Your task to perform on an android device: toggle priority inbox in the gmail app Image 0: 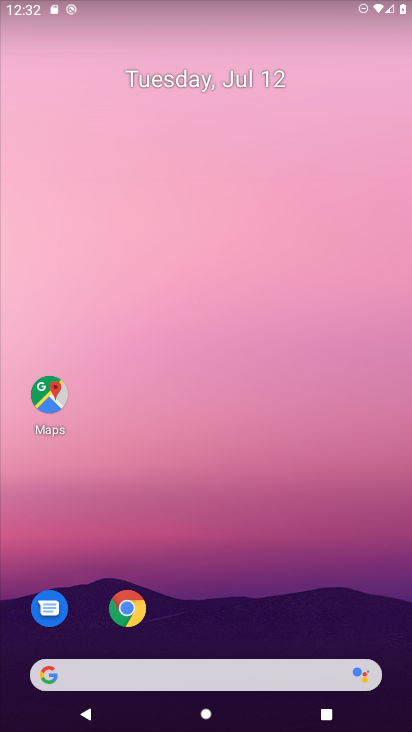
Step 0: drag from (189, 673) to (179, 104)
Your task to perform on an android device: toggle priority inbox in the gmail app Image 1: 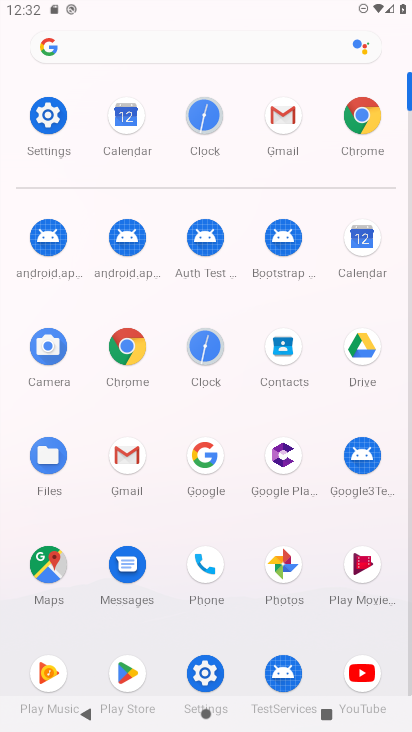
Step 1: click (128, 442)
Your task to perform on an android device: toggle priority inbox in the gmail app Image 2: 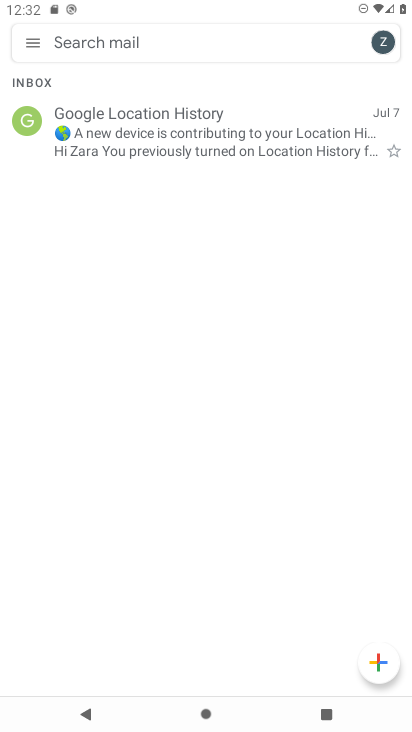
Step 2: click (40, 45)
Your task to perform on an android device: toggle priority inbox in the gmail app Image 3: 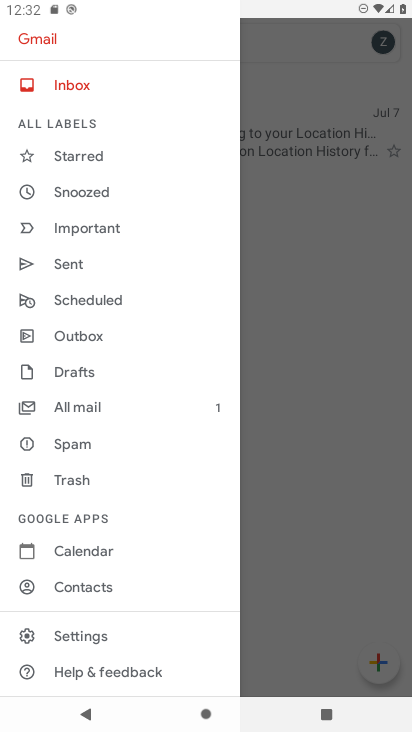
Step 3: click (72, 623)
Your task to perform on an android device: toggle priority inbox in the gmail app Image 4: 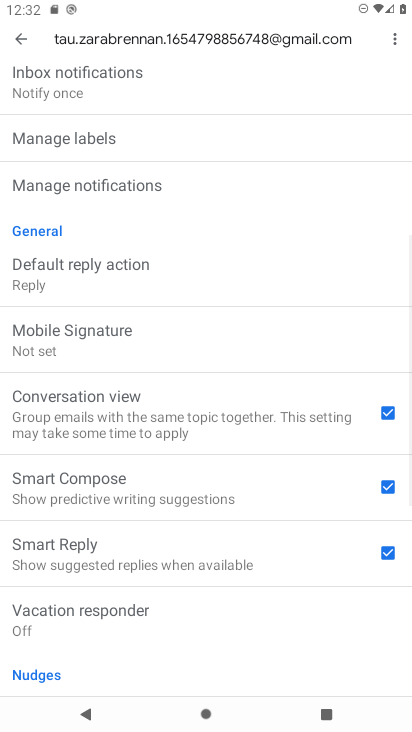
Step 4: drag from (24, 53) to (32, 384)
Your task to perform on an android device: toggle priority inbox in the gmail app Image 5: 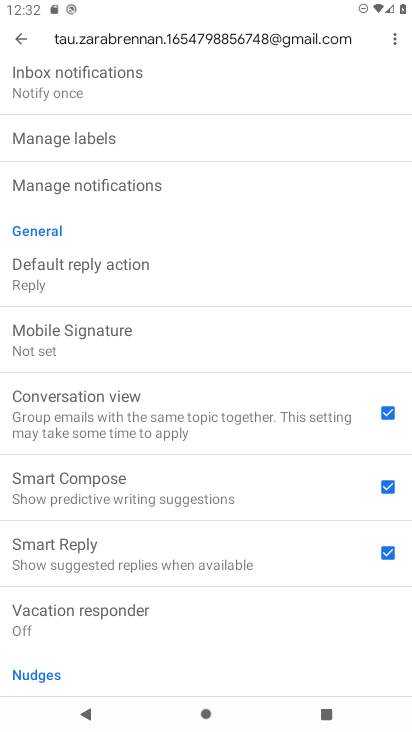
Step 5: drag from (69, 82) to (61, 494)
Your task to perform on an android device: toggle priority inbox in the gmail app Image 6: 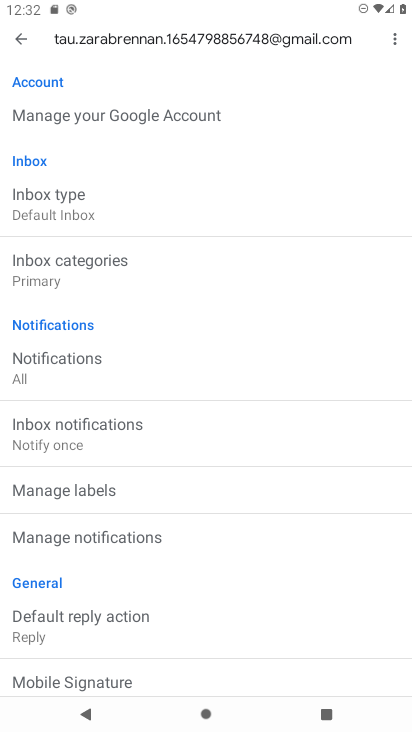
Step 6: click (62, 203)
Your task to perform on an android device: toggle priority inbox in the gmail app Image 7: 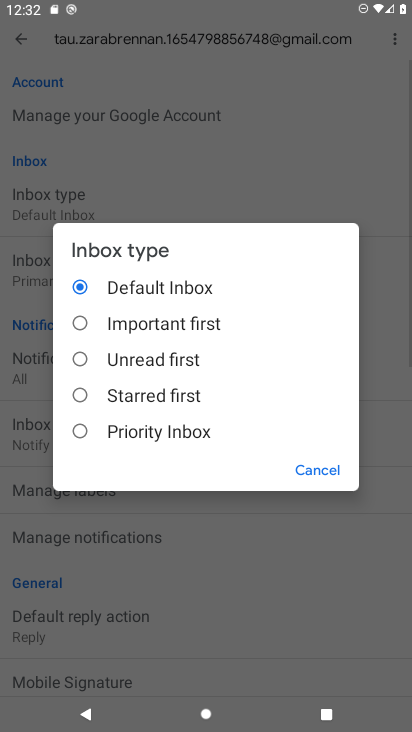
Step 7: click (123, 430)
Your task to perform on an android device: toggle priority inbox in the gmail app Image 8: 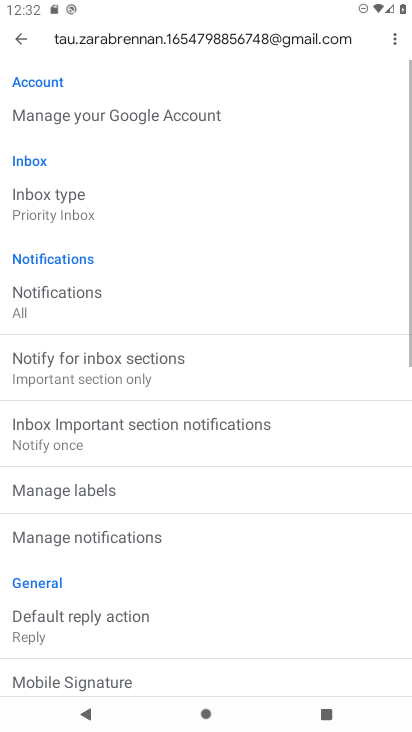
Step 8: task complete